Your task to perform on an android device: Search for seafood restaurants on Google Maps Image 0: 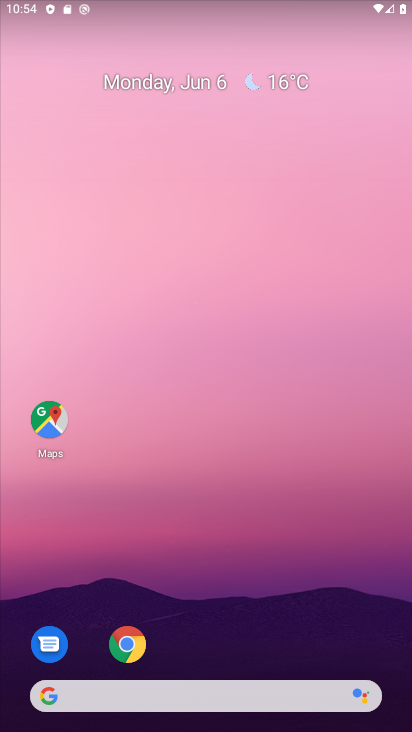
Step 0: drag from (223, 636) to (191, 22)
Your task to perform on an android device: Search for seafood restaurants on Google Maps Image 1: 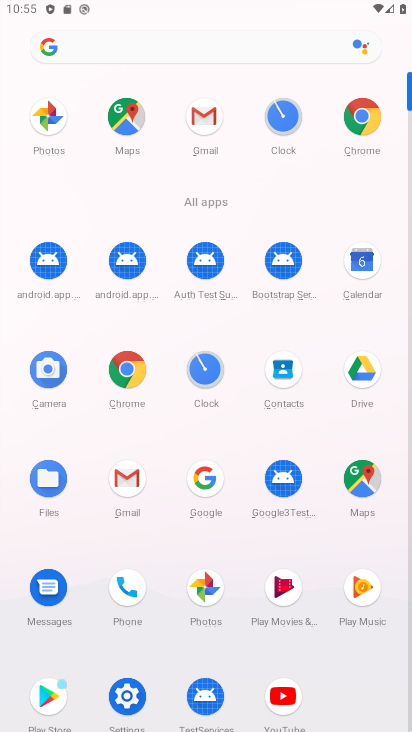
Step 1: click (371, 496)
Your task to perform on an android device: Search for seafood restaurants on Google Maps Image 2: 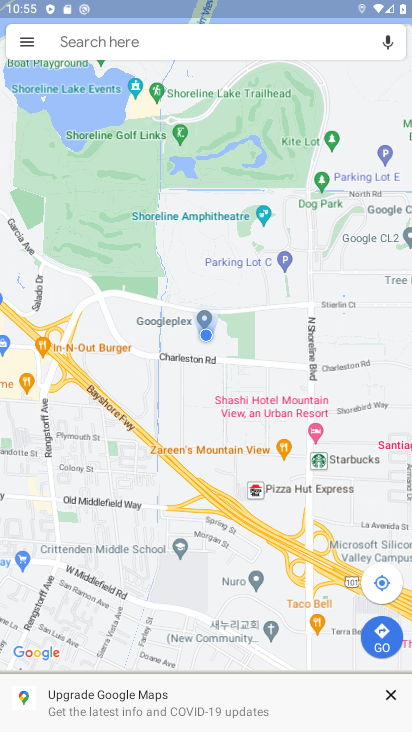
Step 2: click (223, 47)
Your task to perform on an android device: Search for seafood restaurants on Google Maps Image 3: 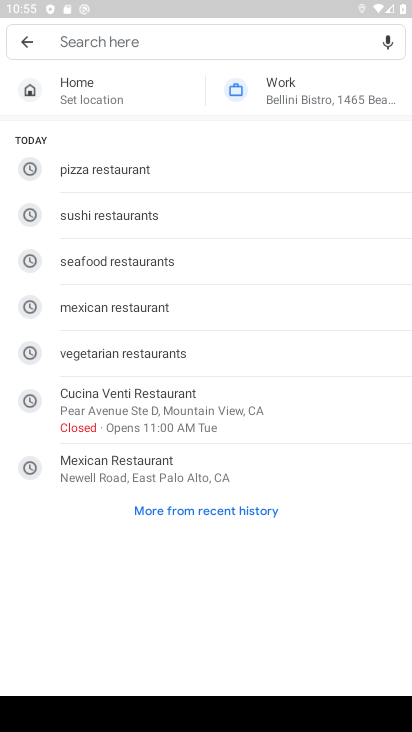
Step 3: click (147, 258)
Your task to perform on an android device: Search for seafood restaurants on Google Maps Image 4: 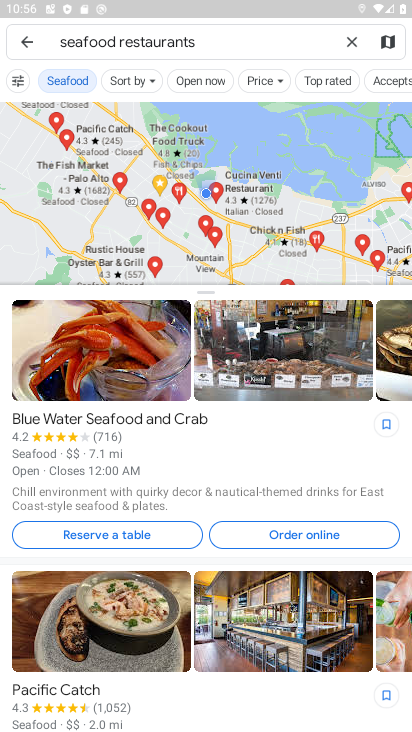
Step 4: task complete